Your task to perform on an android device: turn vacation reply on in the gmail app Image 0: 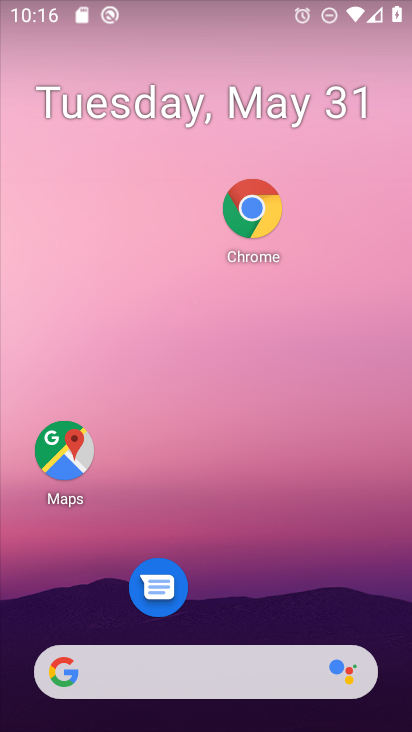
Step 0: drag from (213, 627) to (210, 134)
Your task to perform on an android device: turn vacation reply on in the gmail app Image 1: 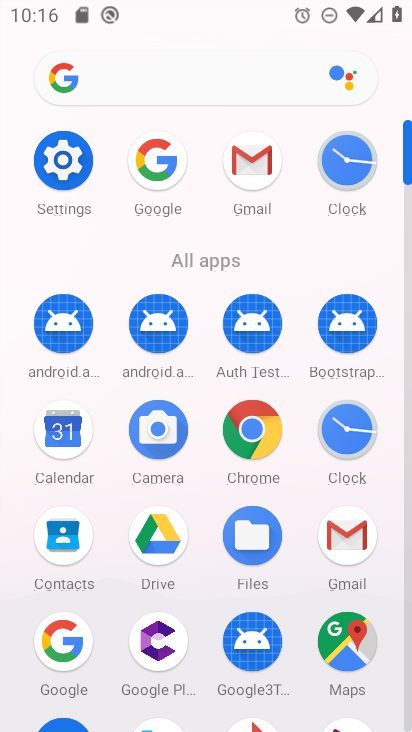
Step 1: click (248, 149)
Your task to perform on an android device: turn vacation reply on in the gmail app Image 2: 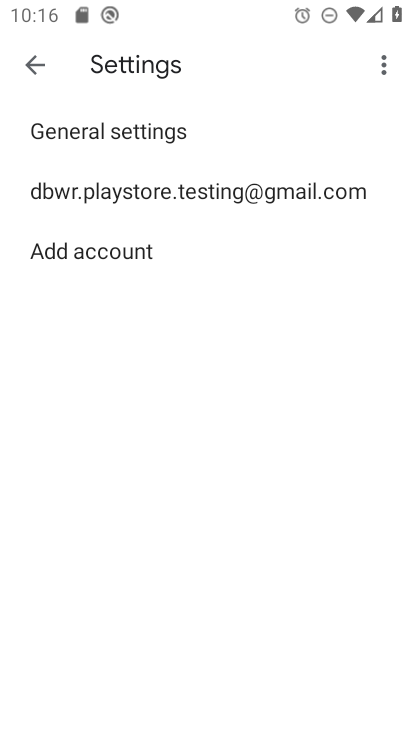
Step 2: click (374, 188)
Your task to perform on an android device: turn vacation reply on in the gmail app Image 3: 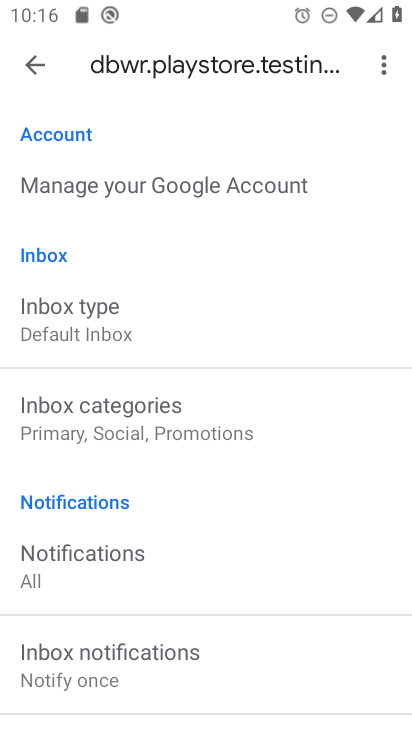
Step 3: drag from (250, 661) to (275, 173)
Your task to perform on an android device: turn vacation reply on in the gmail app Image 4: 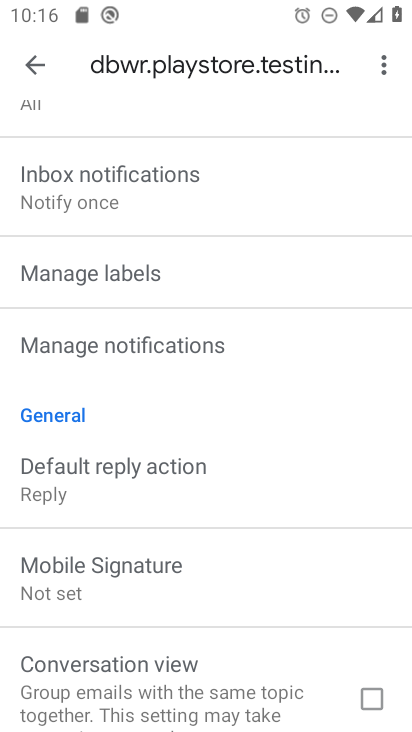
Step 4: drag from (254, 579) to (265, 219)
Your task to perform on an android device: turn vacation reply on in the gmail app Image 5: 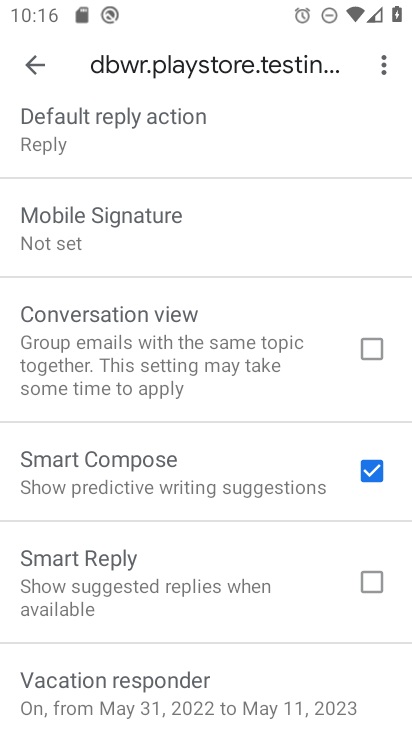
Step 5: click (226, 680)
Your task to perform on an android device: turn vacation reply on in the gmail app Image 6: 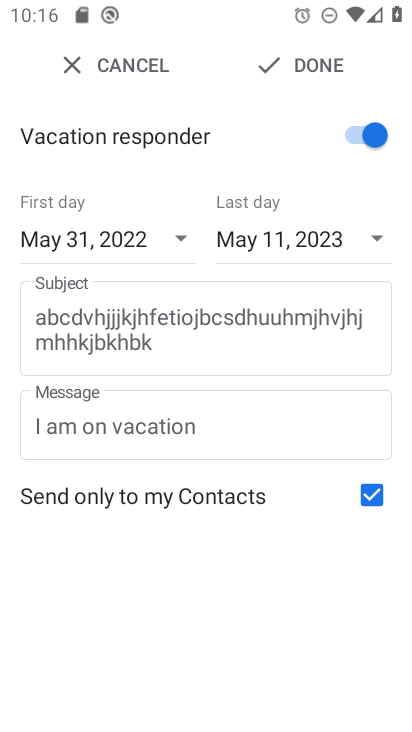
Step 6: task complete